Your task to perform on an android device: set the timer Image 0: 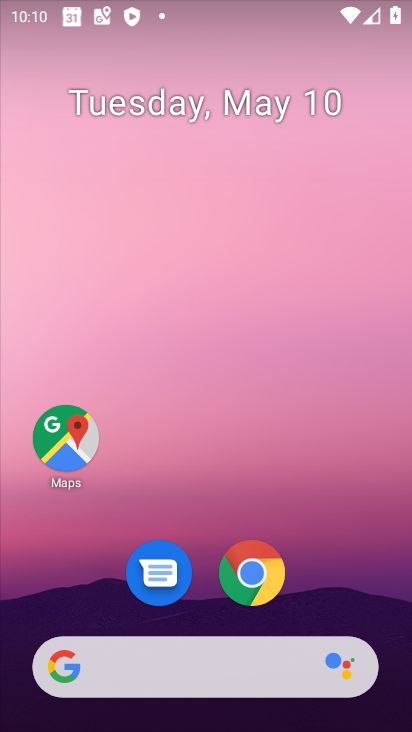
Step 0: drag from (322, 548) to (204, 54)
Your task to perform on an android device: set the timer Image 1: 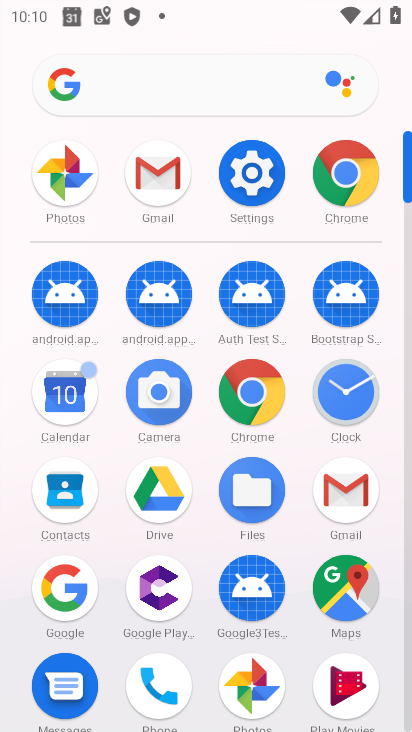
Step 1: click (342, 392)
Your task to perform on an android device: set the timer Image 2: 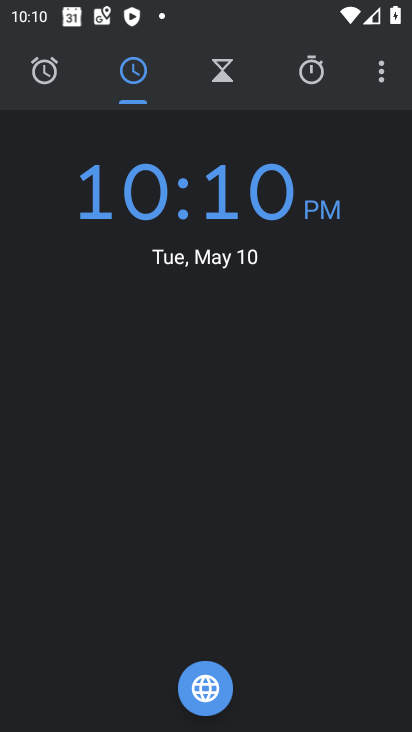
Step 2: click (225, 61)
Your task to perform on an android device: set the timer Image 3: 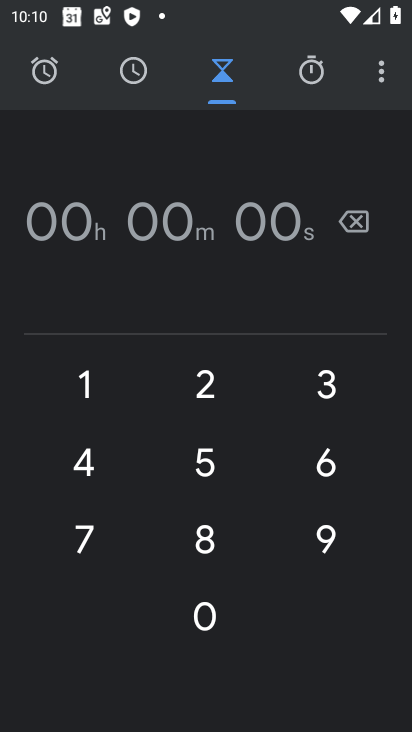
Step 3: click (204, 382)
Your task to perform on an android device: set the timer Image 4: 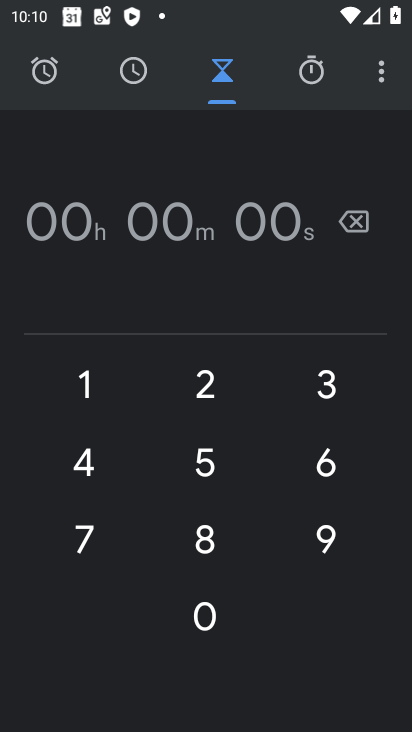
Step 4: click (204, 382)
Your task to perform on an android device: set the timer Image 5: 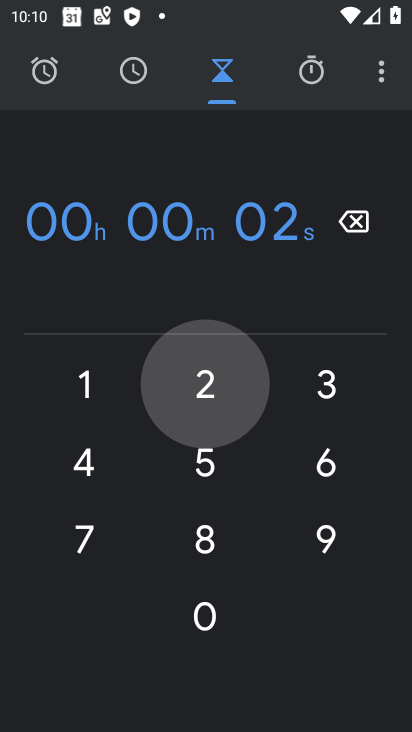
Step 5: click (204, 382)
Your task to perform on an android device: set the timer Image 6: 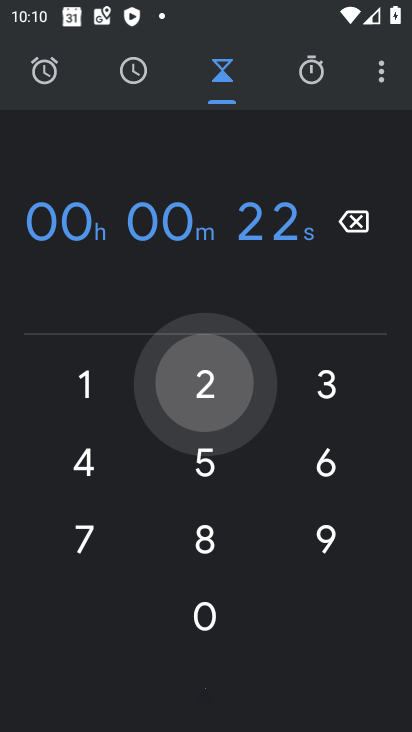
Step 6: click (204, 382)
Your task to perform on an android device: set the timer Image 7: 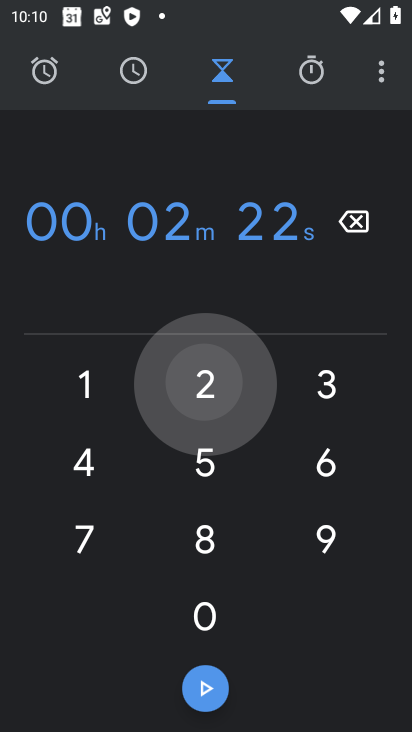
Step 7: click (204, 382)
Your task to perform on an android device: set the timer Image 8: 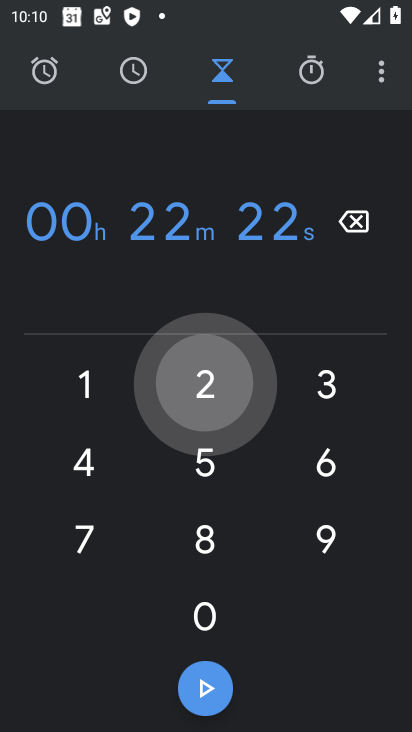
Step 8: click (204, 382)
Your task to perform on an android device: set the timer Image 9: 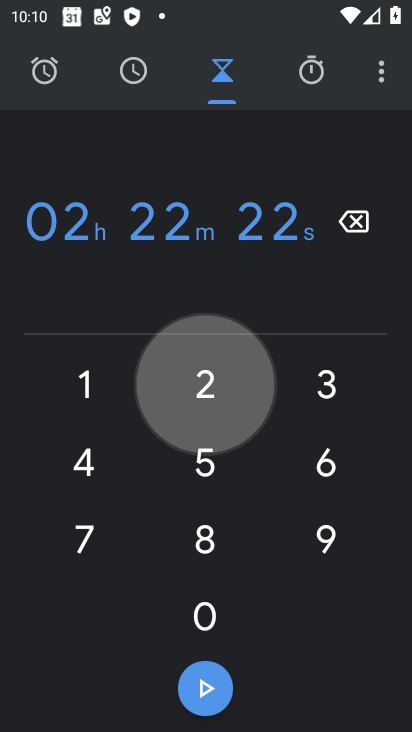
Step 9: click (204, 382)
Your task to perform on an android device: set the timer Image 10: 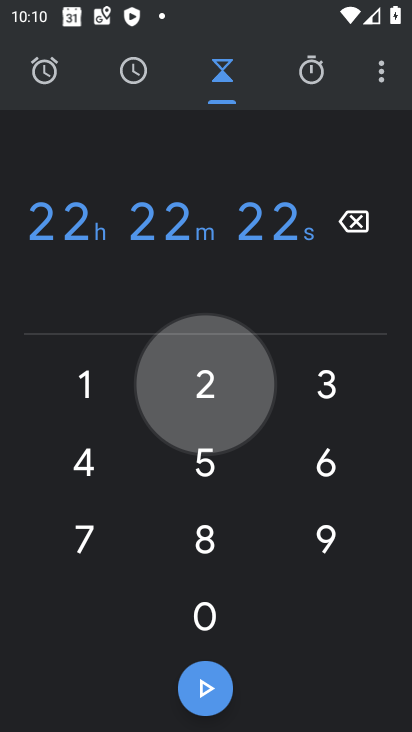
Step 10: click (204, 382)
Your task to perform on an android device: set the timer Image 11: 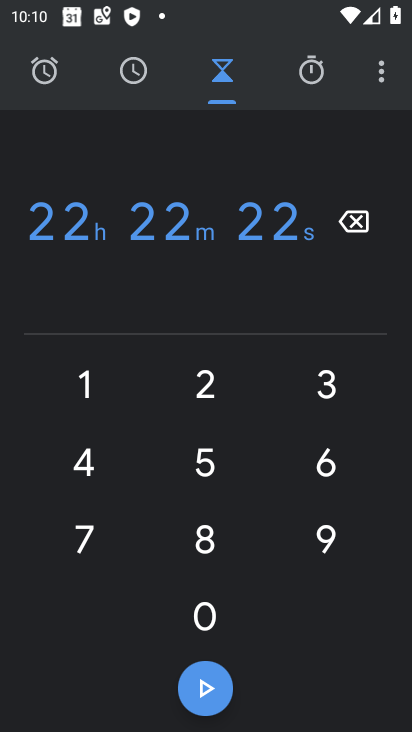
Step 11: task complete